Your task to perform on an android device: open app "DoorDash - Food Delivery" (install if not already installed) and enter user name: "Richard@outlook.com" and password: "informally" Image 0: 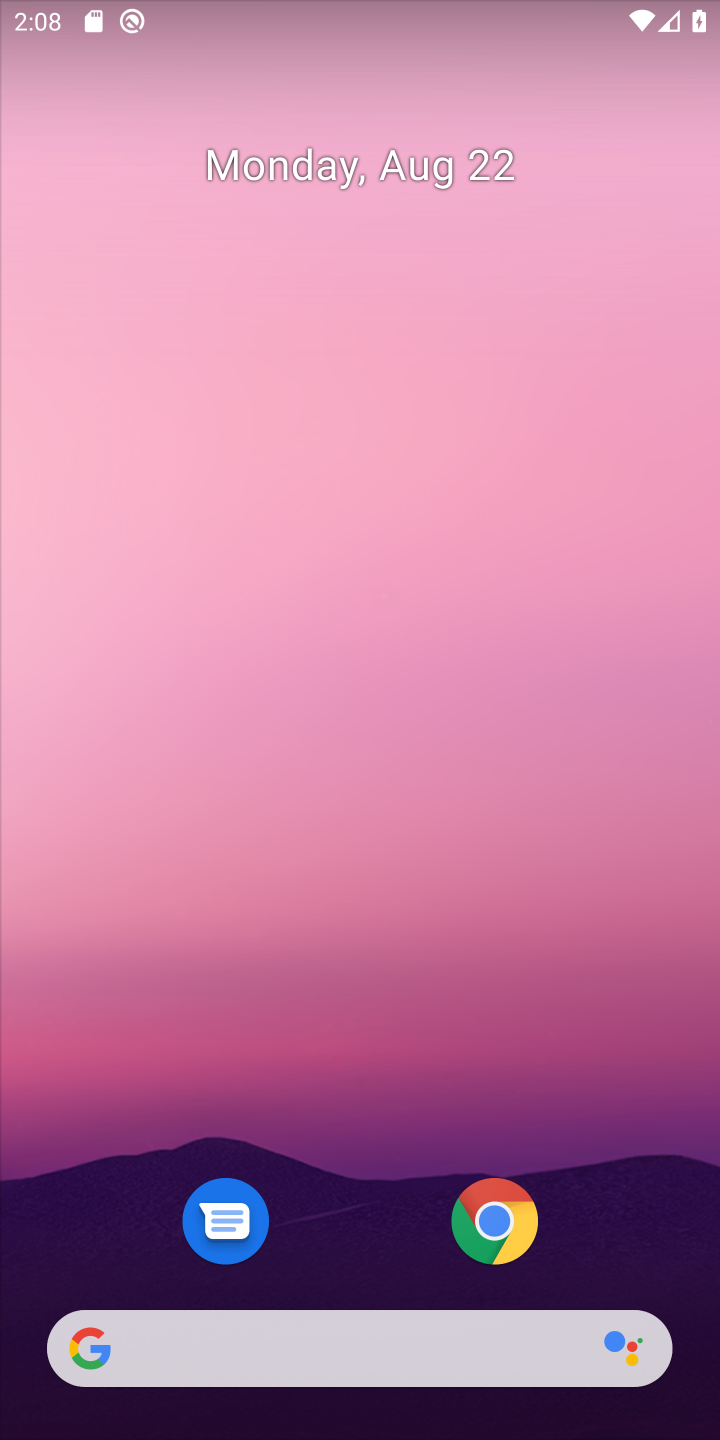
Step 0: drag from (342, 1261) to (358, 93)
Your task to perform on an android device: open app "DoorDash - Food Delivery" (install if not already installed) and enter user name: "Richard@outlook.com" and password: "informally" Image 1: 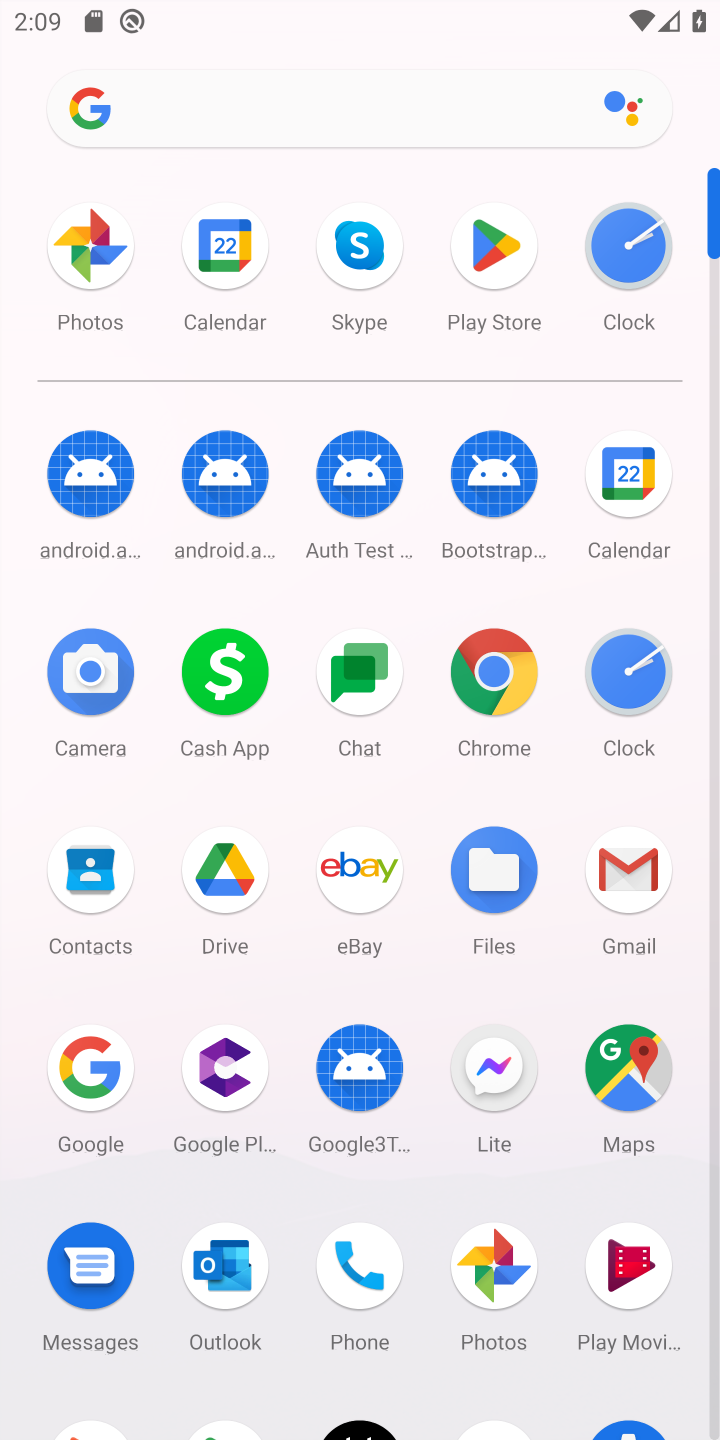
Step 1: click (490, 234)
Your task to perform on an android device: open app "DoorDash - Food Delivery" (install if not already installed) and enter user name: "Richard@outlook.com" and password: "informally" Image 2: 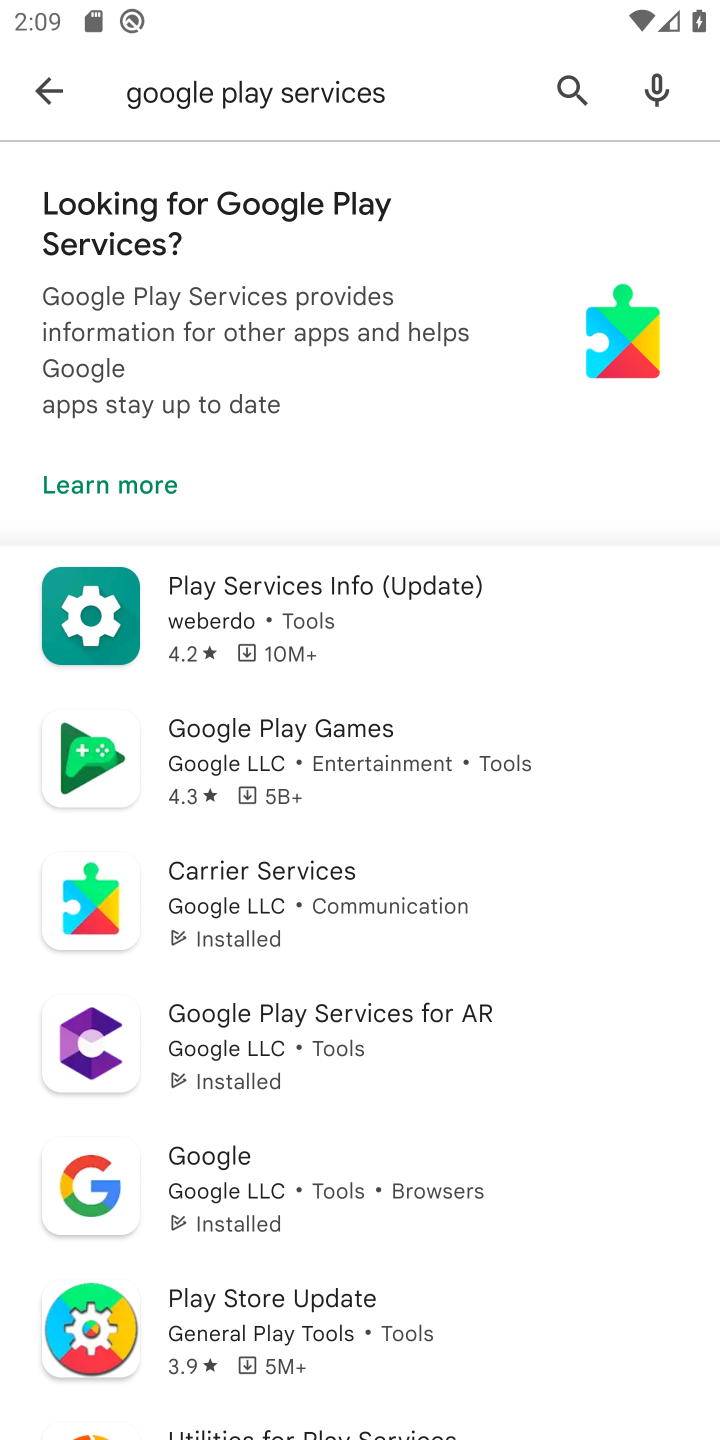
Step 2: click (571, 87)
Your task to perform on an android device: open app "DoorDash - Food Delivery" (install if not already installed) and enter user name: "Richard@outlook.com" and password: "informally" Image 3: 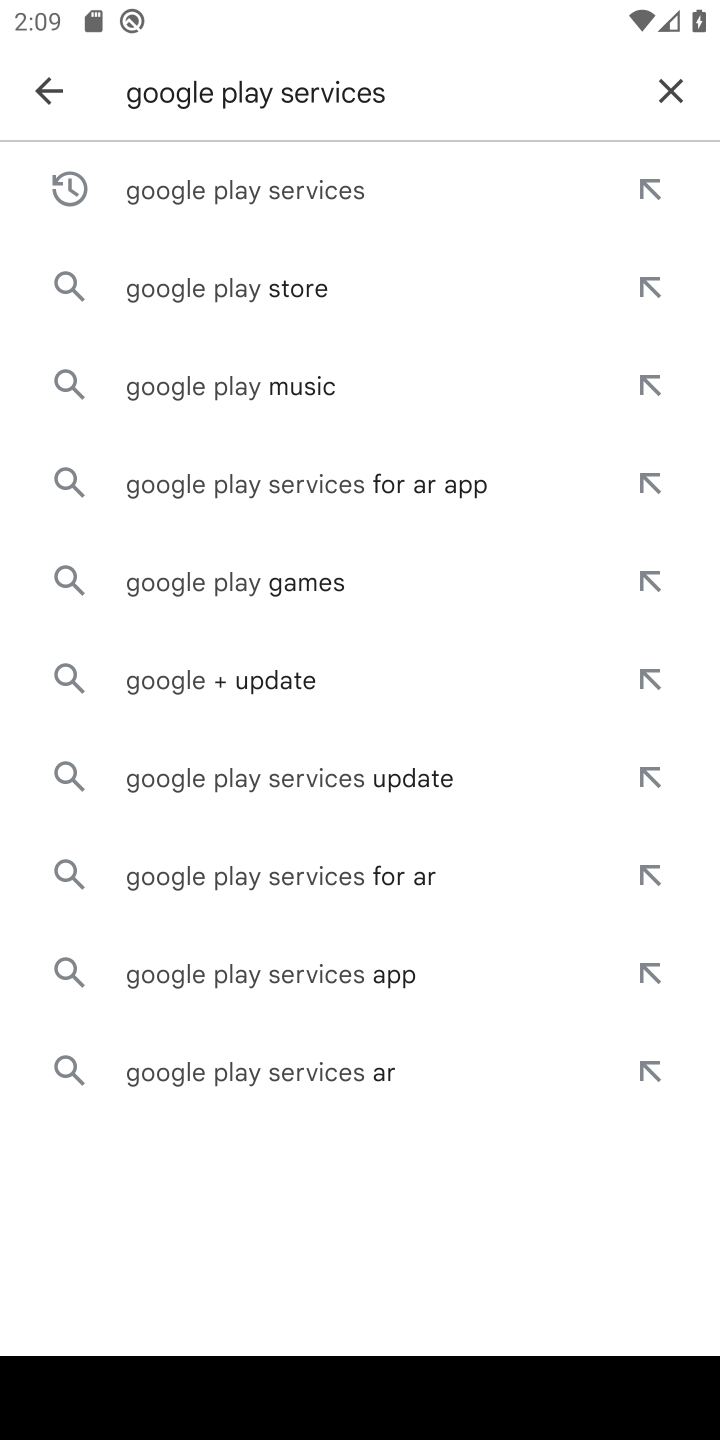
Step 3: click (664, 82)
Your task to perform on an android device: open app "DoorDash - Food Delivery" (install if not already installed) and enter user name: "Richard@outlook.com" and password: "informally" Image 4: 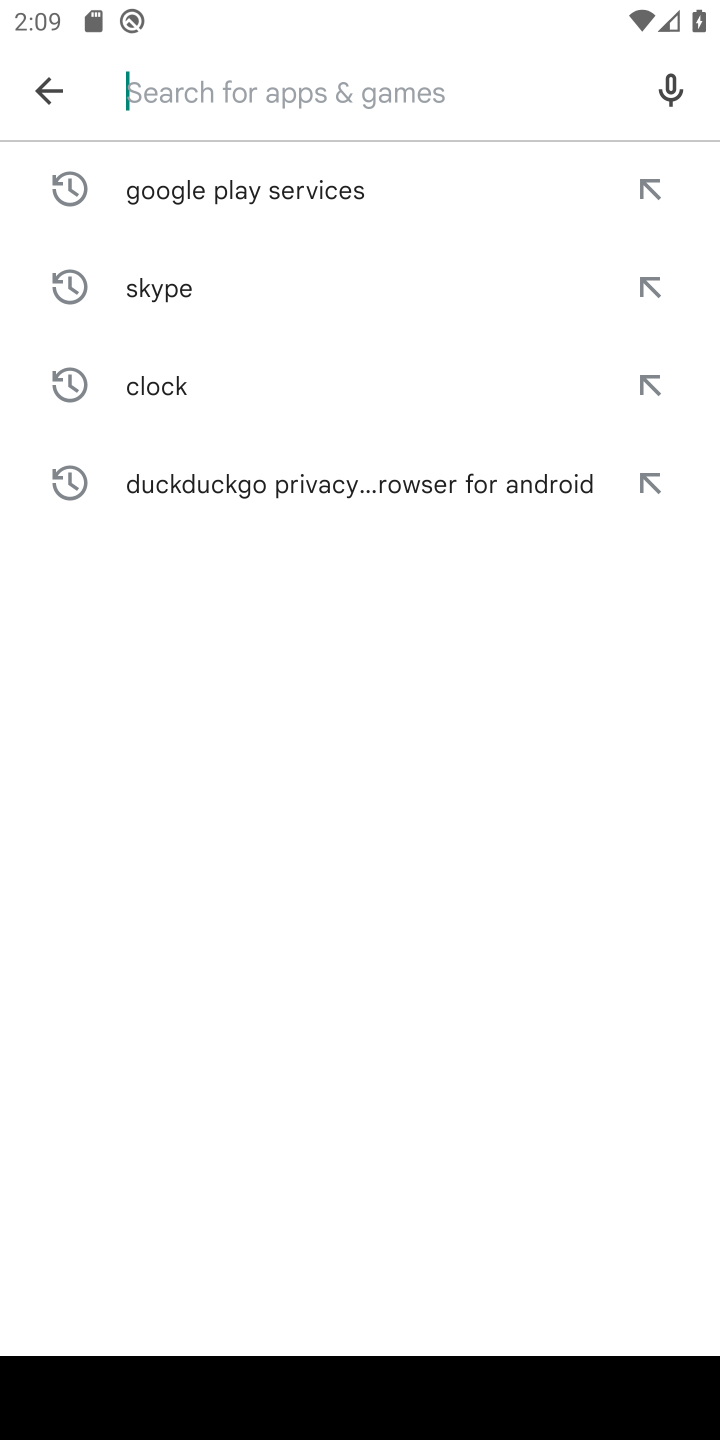
Step 4: type "DoorDash - Food Delivery"
Your task to perform on an android device: open app "DoorDash - Food Delivery" (install if not already installed) and enter user name: "Richard@outlook.com" and password: "informally" Image 5: 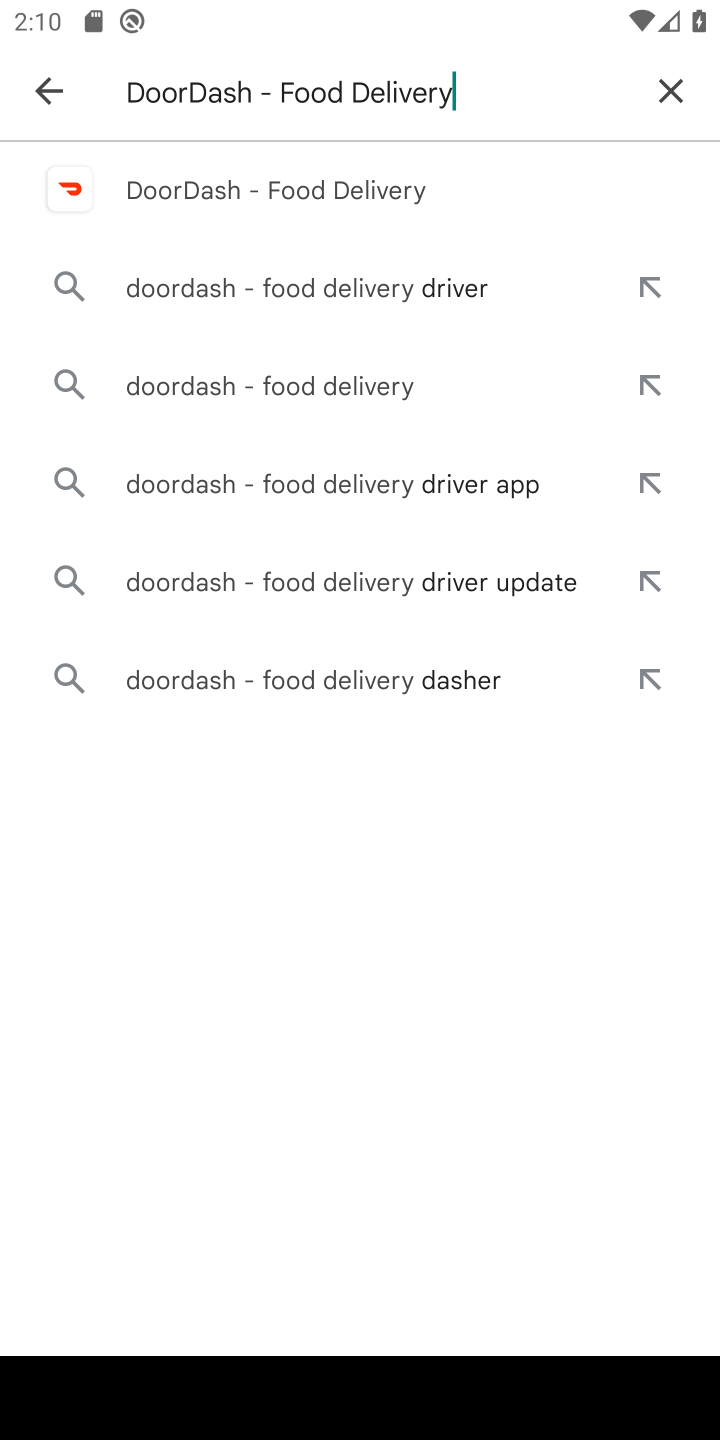
Step 5: click (361, 196)
Your task to perform on an android device: open app "DoorDash - Food Delivery" (install if not already installed) and enter user name: "Richard@outlook.com" and password: "informally" Image 6: 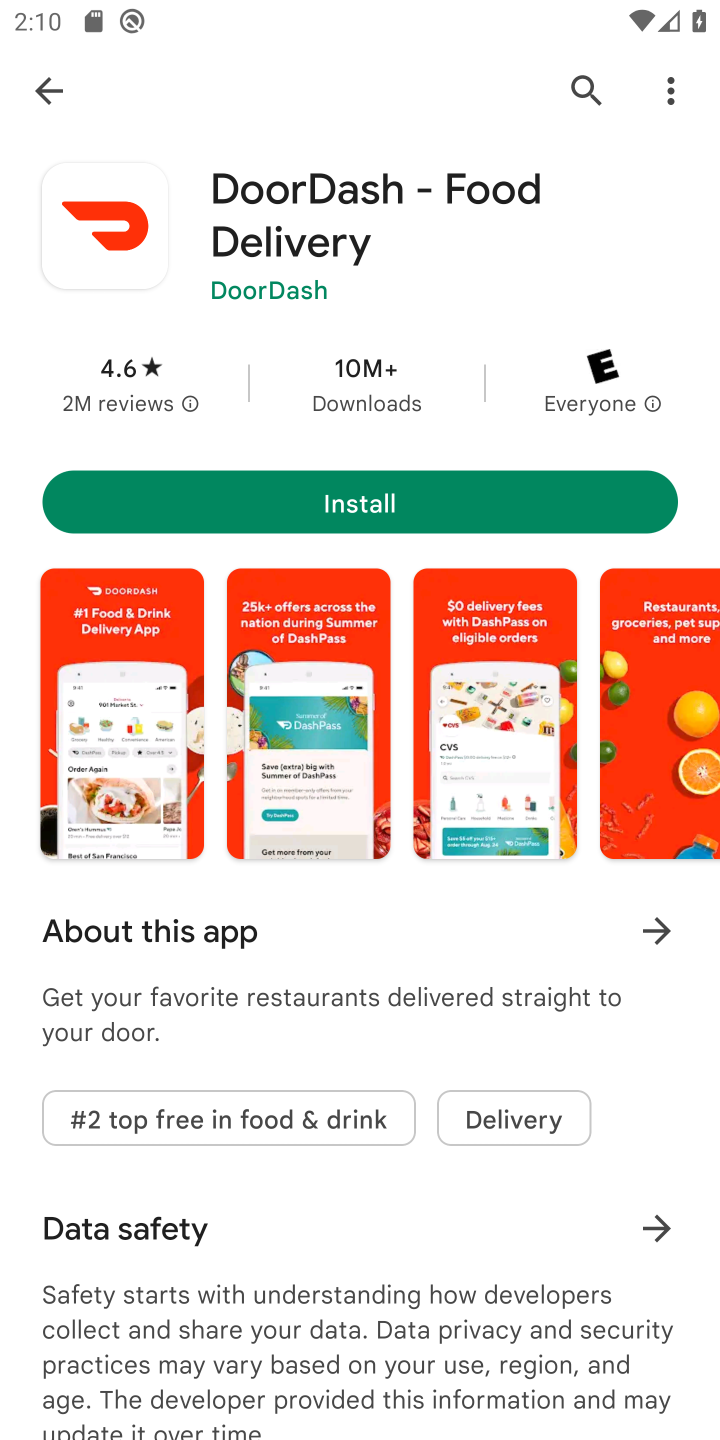
Step 6: click (347, 486)
Your task to perform on an android device: open app "DoorDash - Food Delivery" (install if not already installed) and enter user name: "Richard@outlook.com" and password: "informally" Image 7: 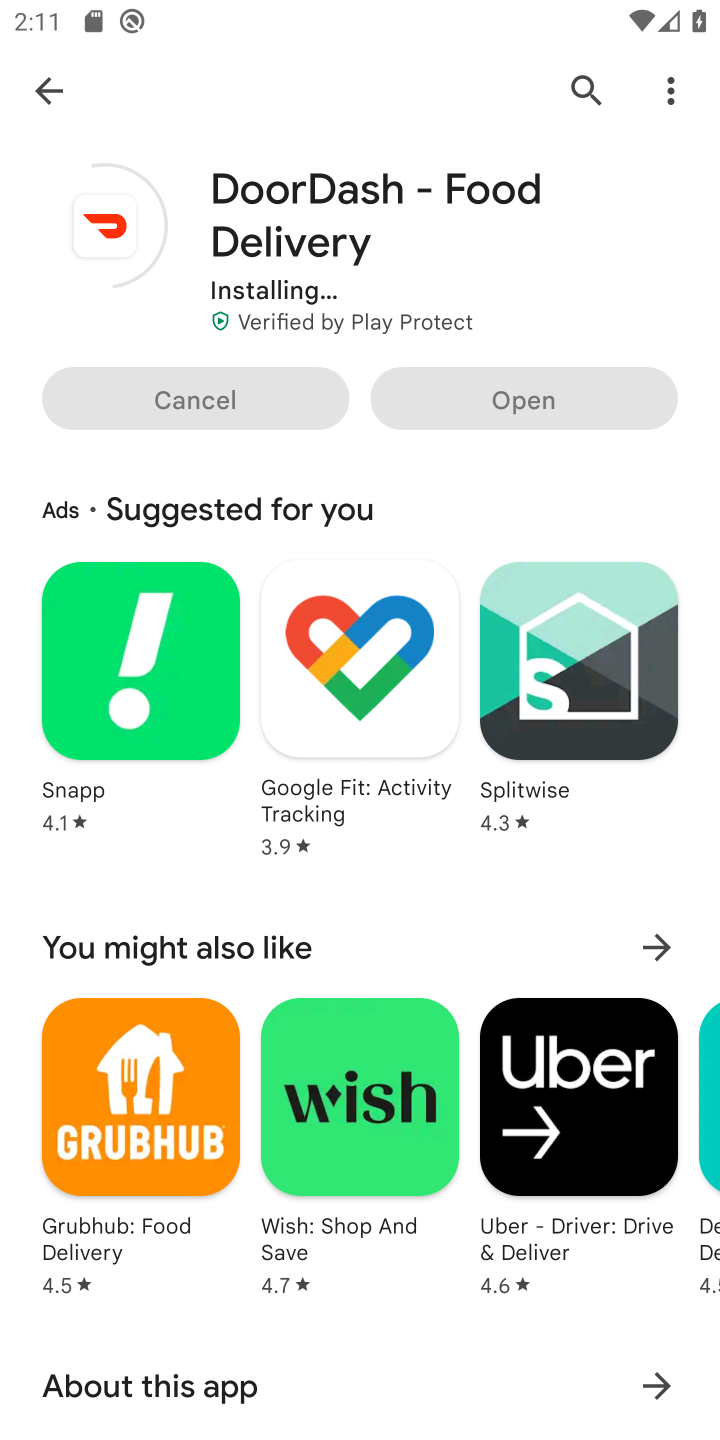
Step 7: click (44, 89)
Your task to perform on an android device: open app "DoorDash - Food Delivery" (install if not already installed) and enter user name: "Richard@outlook.com" and password: "informally" Image 8: 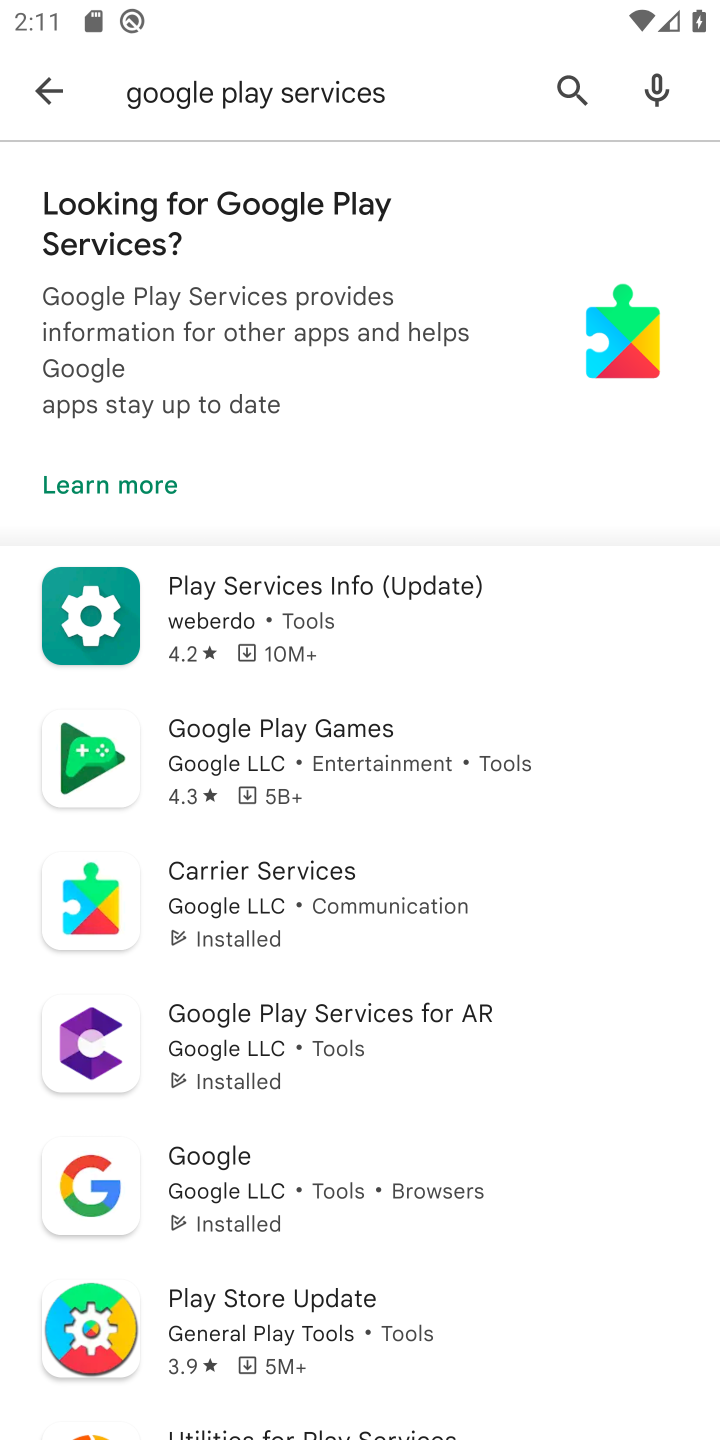
Step 8: click (588, 88)
Your task to perform on an android device: open app "DoorDash - Food Delivery" (install if not already installed) and enter user name: "Richard@outlook.com" and password: "informally" Image 9: 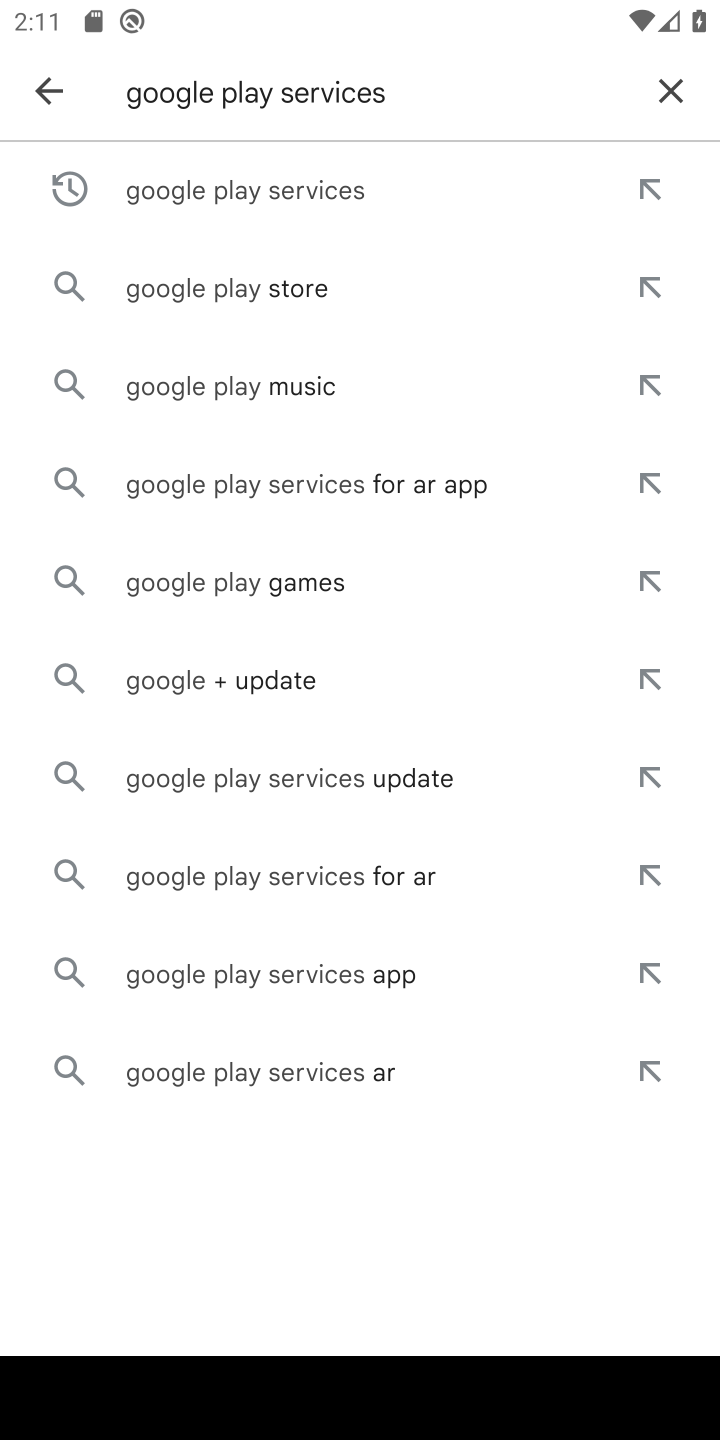
Step 9: type "DoorDash - Food Delivery"
Your task to perform on an android device: open app "DoorDash - Food Delivery" (install if not already installed) and enter user name: "Richard@outlook.com" and password: "informally" Image 10: 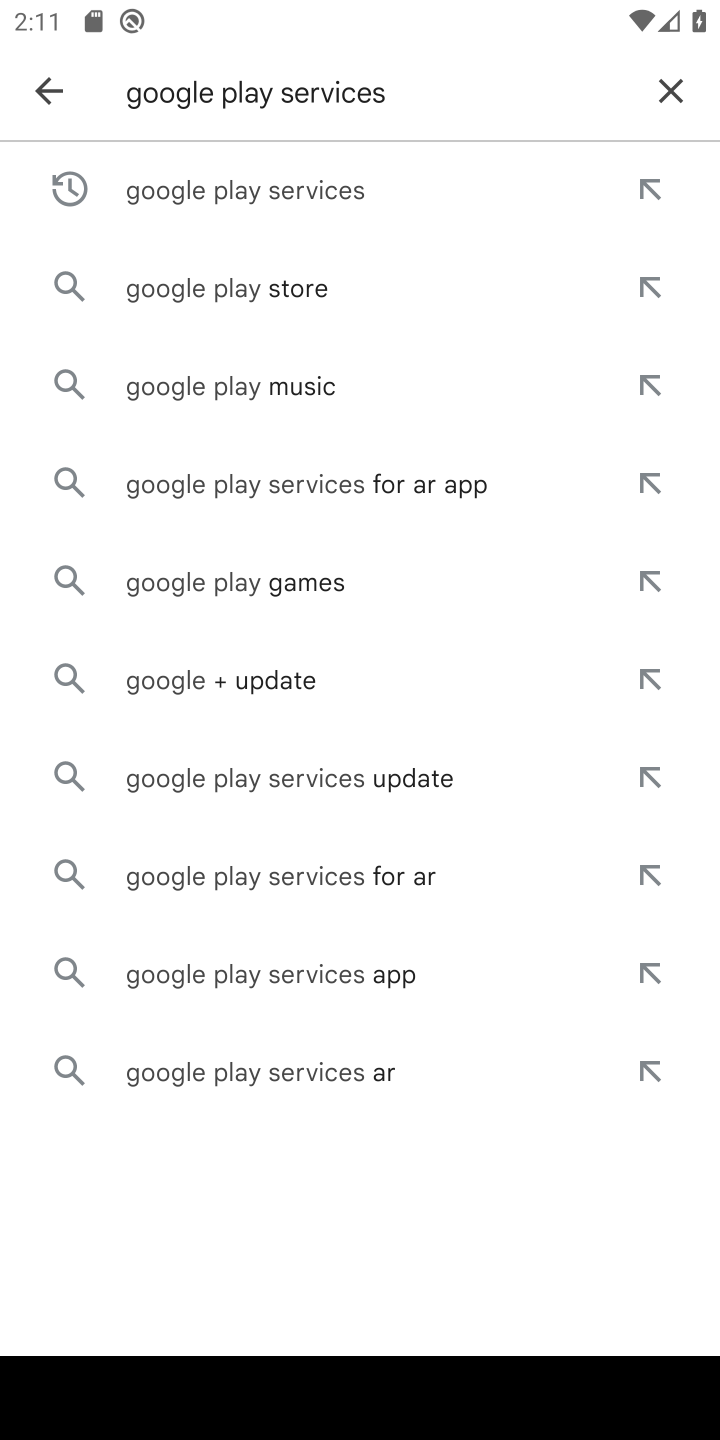
Step 10: click (678, 87)
Your task to perform on an android device: open app "DoorDash - Food Delivery" (install if not already installed) and enter user name: "Richard@outlook.com" and password: "informally" Image 11: 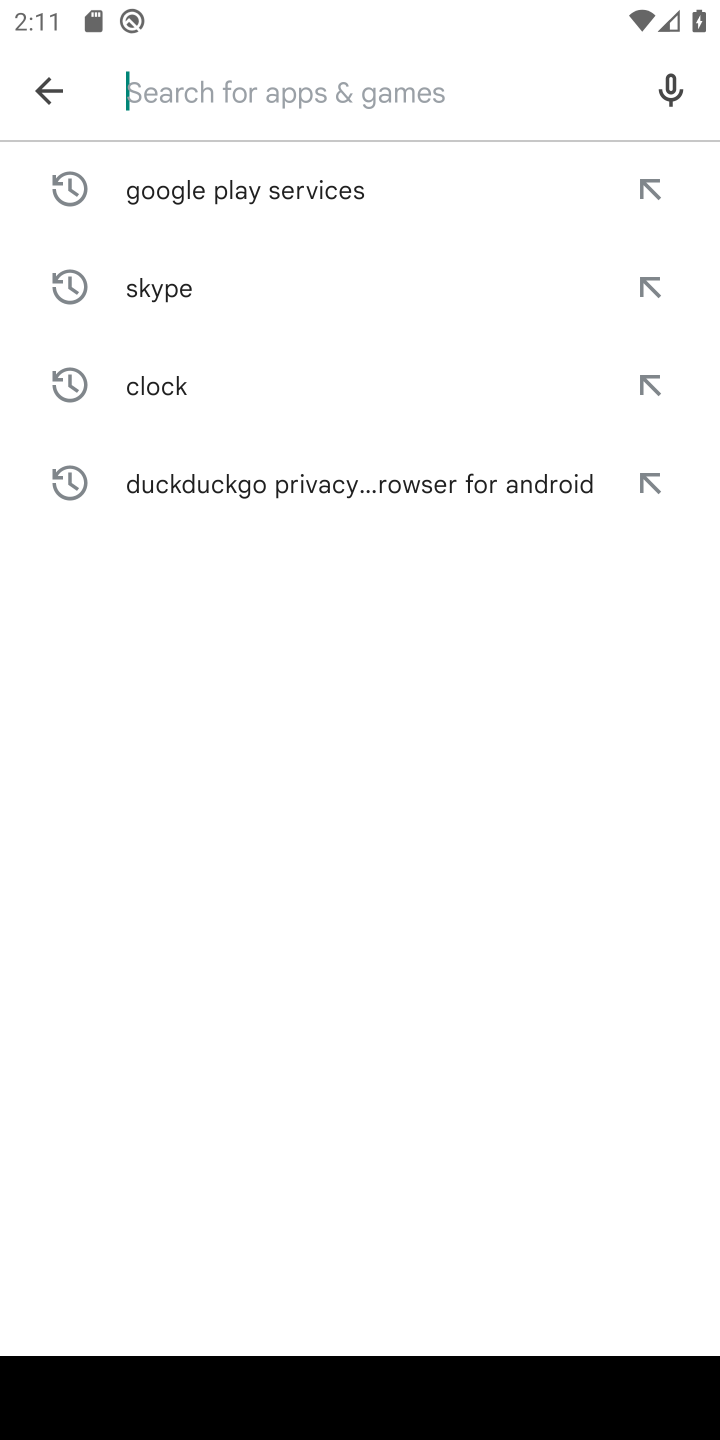
Step 11: type "DoorDash - Food Delivery"
Your task to perform on an android device: open app "DoorDash - Food Delivery" (install if not already installed) and enter user name: "Richard@outlook.com" and password: "informally" Image 12: 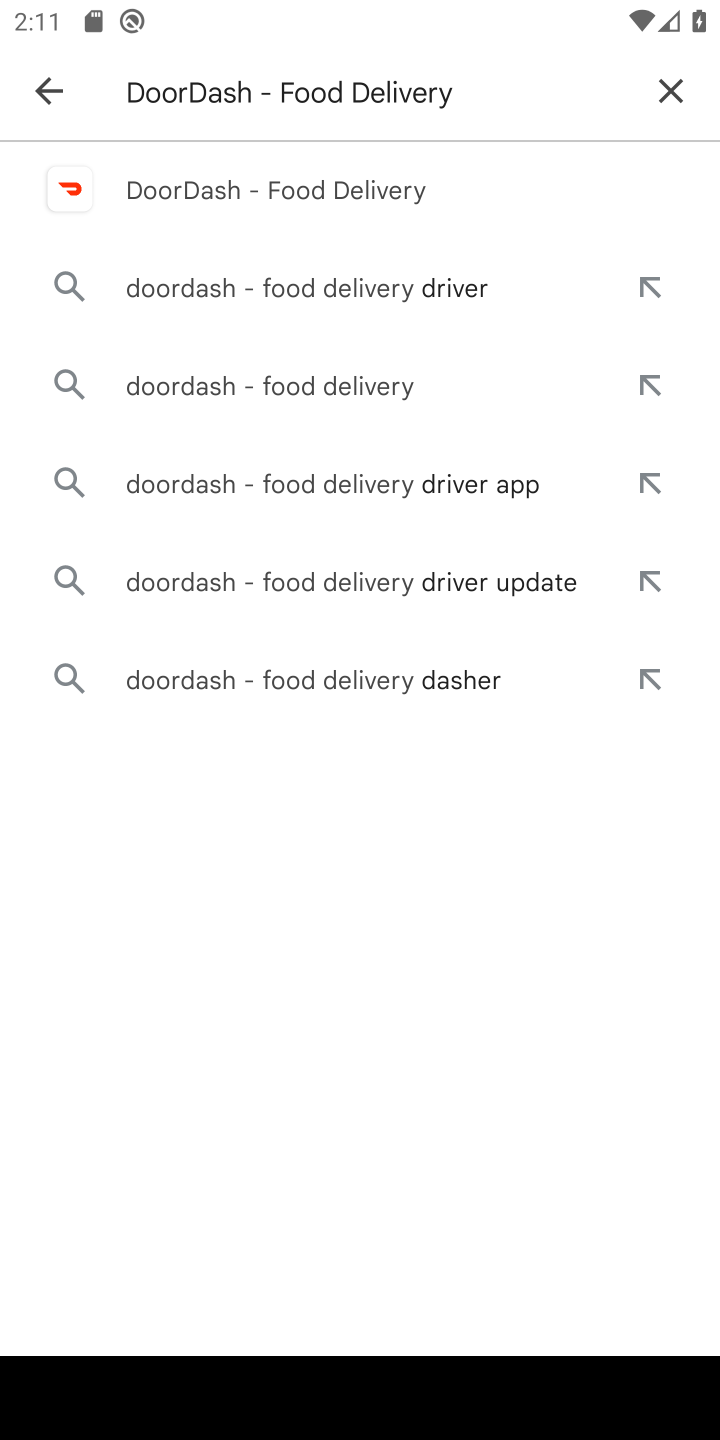
Step 12: click (214, 173)
Your task to perform on an android device: open app "DoorDash - Food Delivery" (install if not already installed) and enter user name: "Richard@outlook.com" and password: "informally" Image 13: 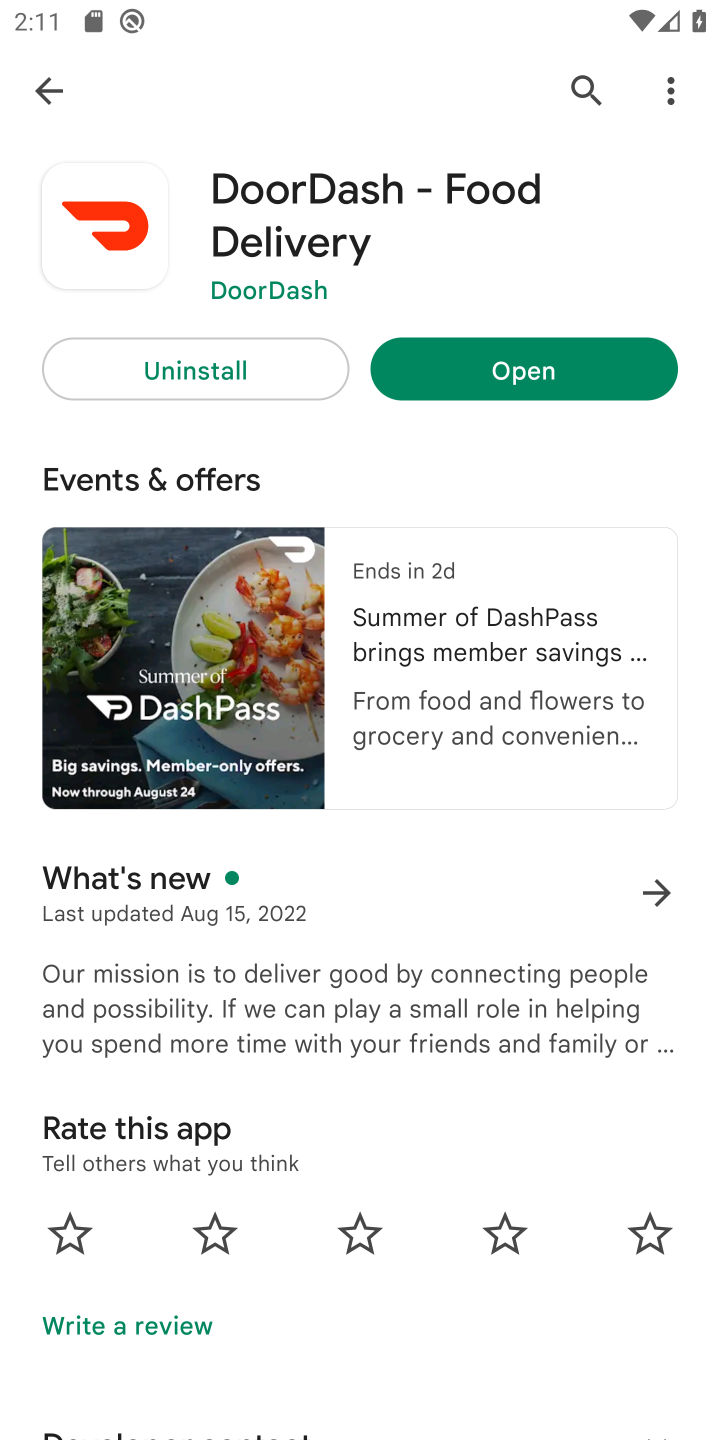
Step 13: click (570, 365)
Your task to perform on an android device: open app "DoorDash - Food Delivery" (install if not already installed) and enter user name: "Richard@outlook.com" and password: "informally" Image 14: 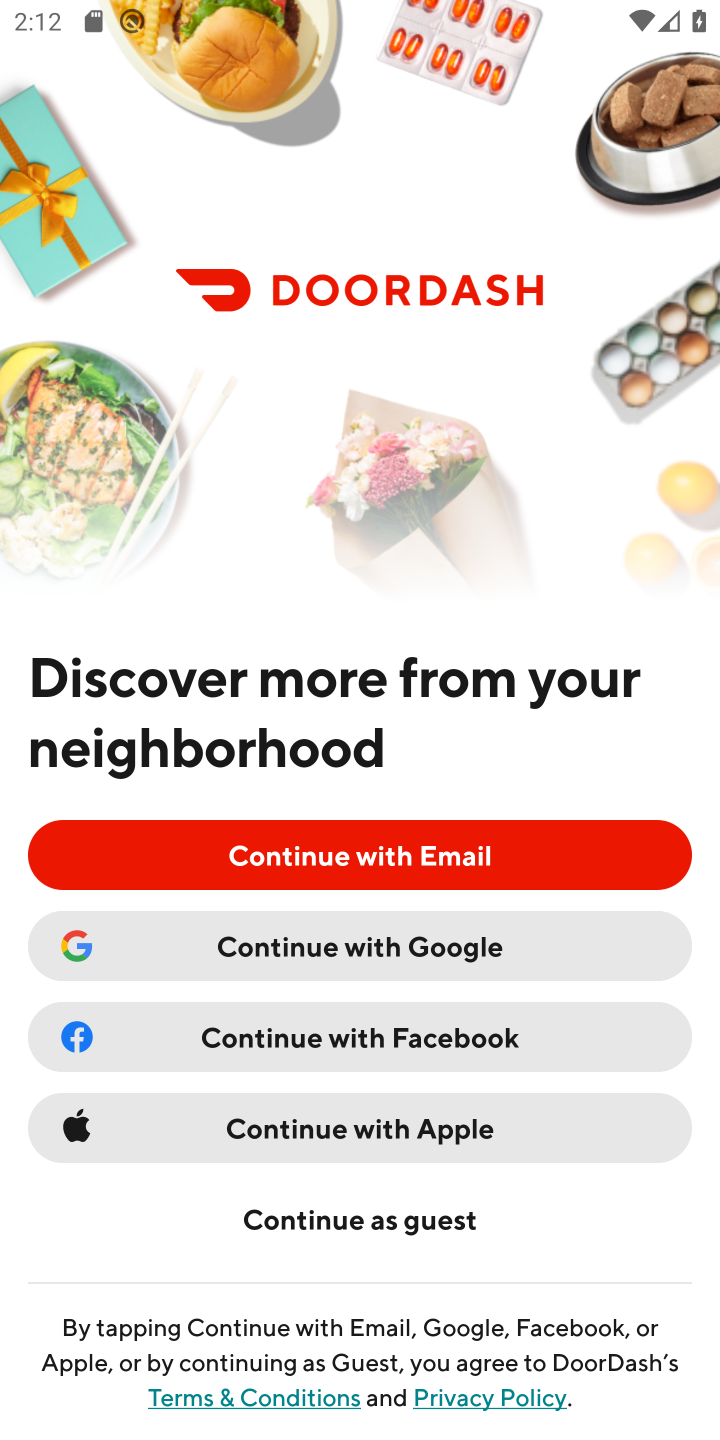
Step 14: task complete